Your task to perform on an android device: visit the assistant section in the google photos Image 0: 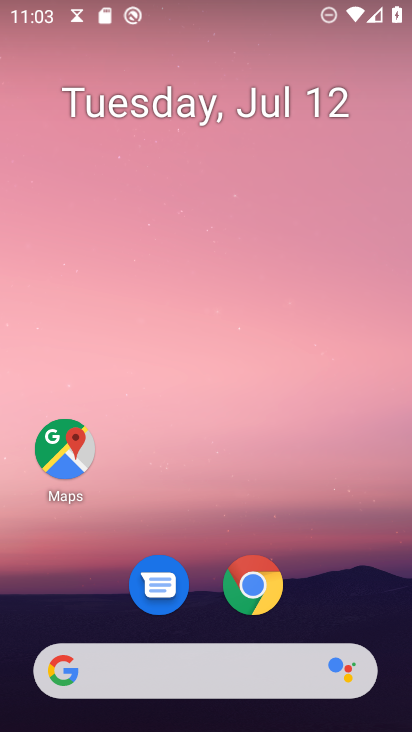
Step 0: drag from (188, 662) to (281, 98)
Your task to perform on an android device: visit the assistant section in the google photos Image 1: 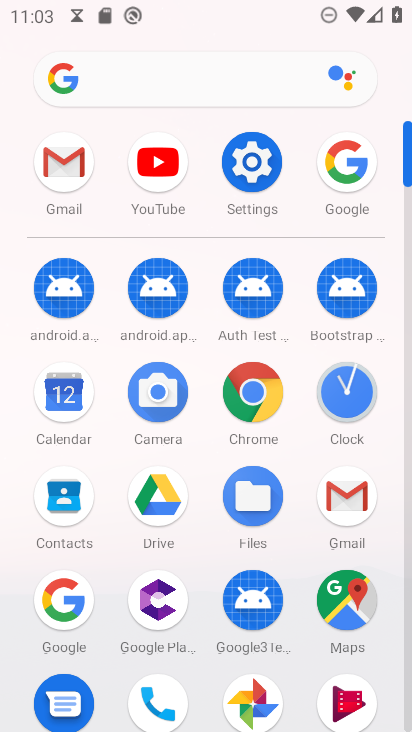
Step 1: click (255, 685)
Your task to perform on an android device: visit the assistant section in the google photos Image 2: 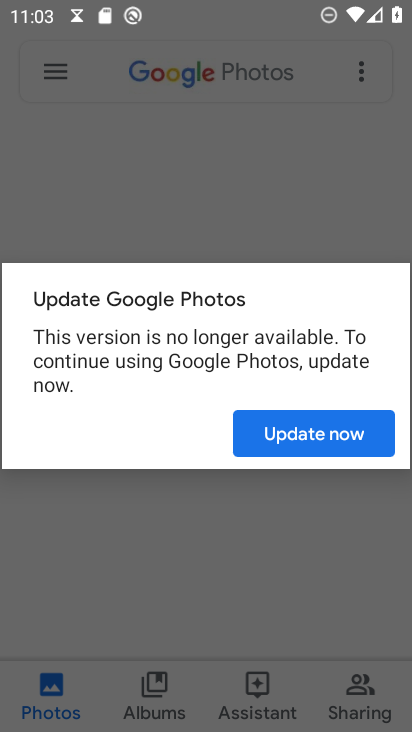
Step 2: click (322, 435)
Your task to perform on an android device: visit the assistant section in the google photos Image 3: 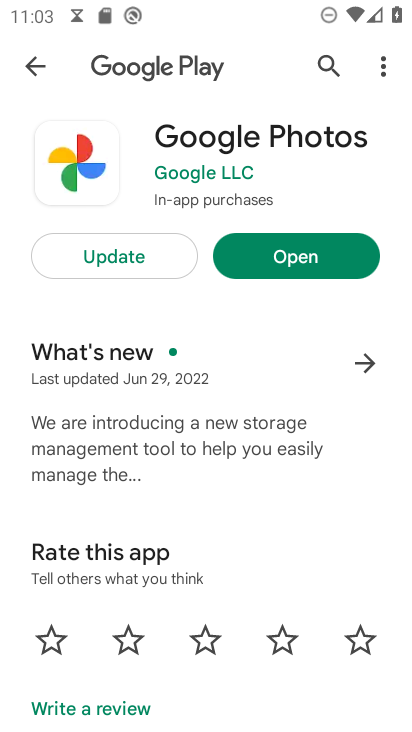
Step 3: click (311, 261)
Your task to perform on an android device: visit the assistant section in the google photos Image 4: 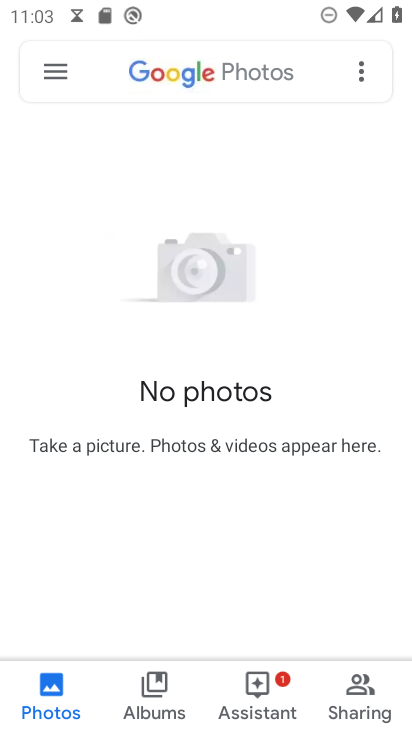
Step 4: click (273, 686)
Your task to perform on an android device: visit the assistant section in the google photos Image 5: 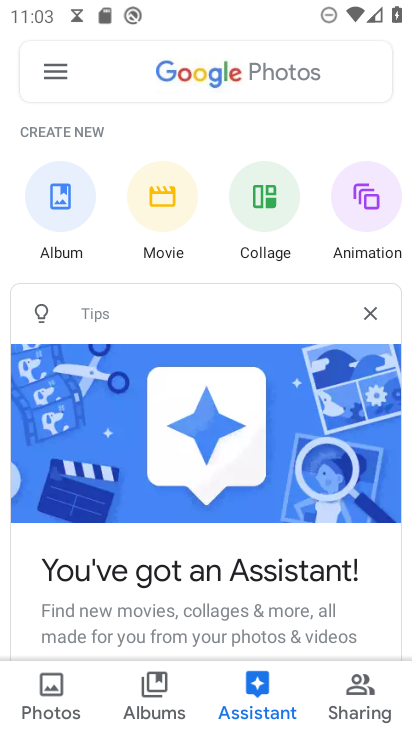
Step 5: task complete